Your task to perform on an android device: change timer sound Image 0: 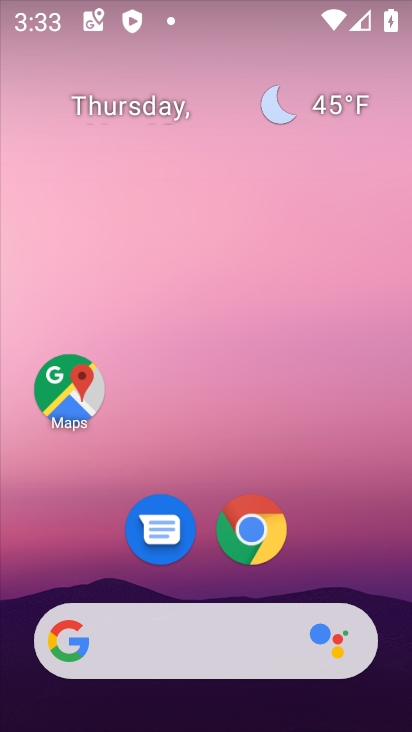
Step 0: drag from (354, 461) to (382, 113)
Your task to perform on an android device: change timer sound Image 1: 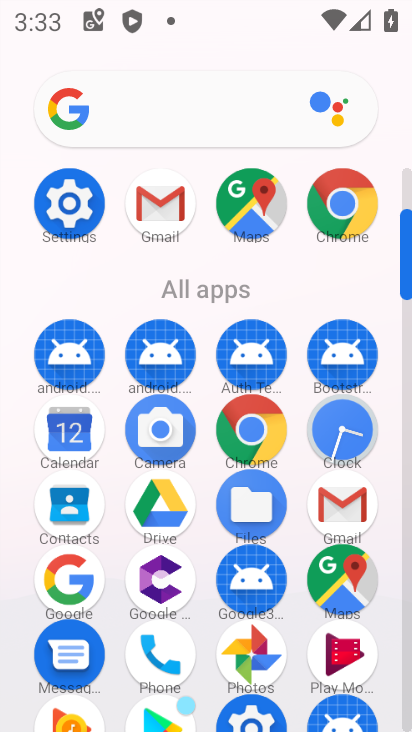
Step 1: click (88, 200)
Your task to perform on an android device: change timer sound Image 2: 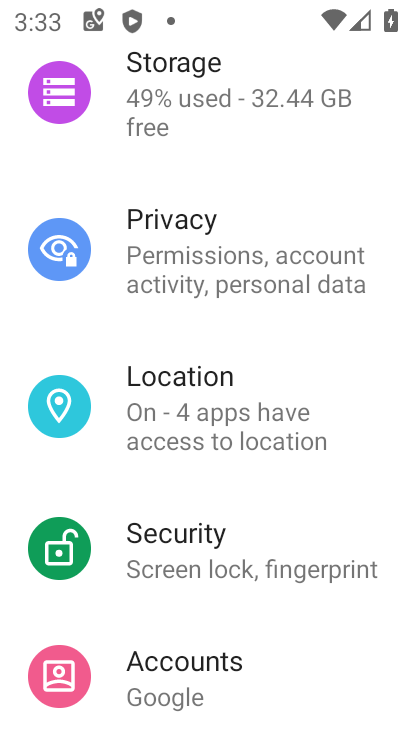
Step 2: press home button
Your task to perform on an android device: change timer sound Image 3: 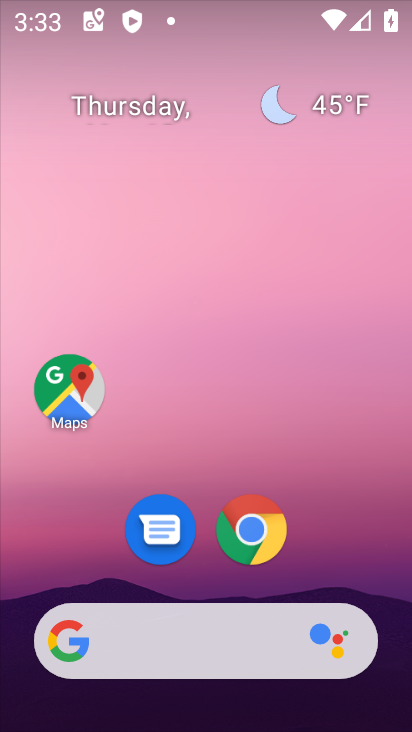
Step 3: drag from (330, 319) to (370, 10)
Your task to perform on an android device: change timer sound Image 4: 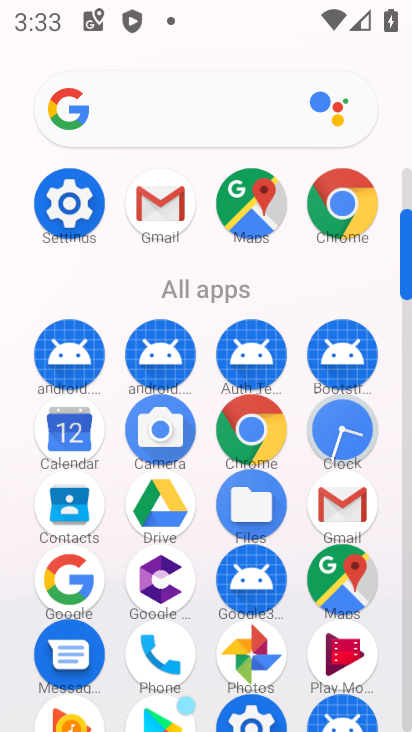
Step 4: click (354, 439)
Your task to perform on an android device: change timer sound Image 5: 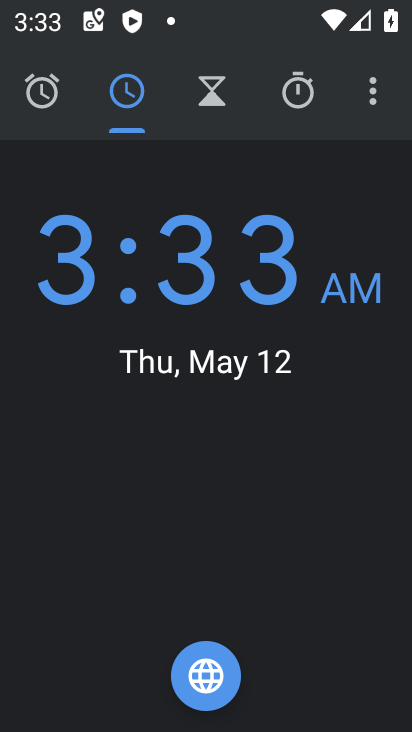
Step 5: click (372, 89)
Your task to perform on an android device: change timer sound Image 6: 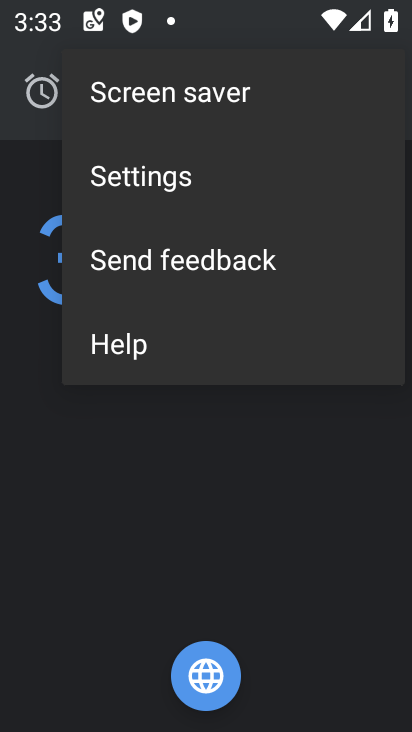
Step 6: click (163, 180)
Your task to perform on an android device: change timer sound Image 7: 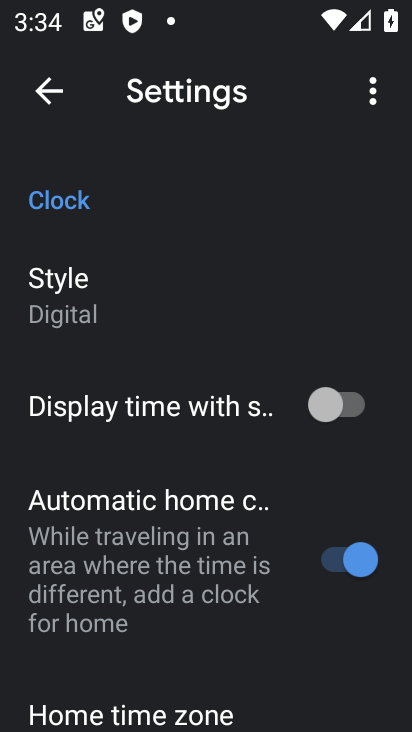
Step 7: drag from (209, 601) to (244, 164)
Your task to perform on an android device: change timer sound Image 8: 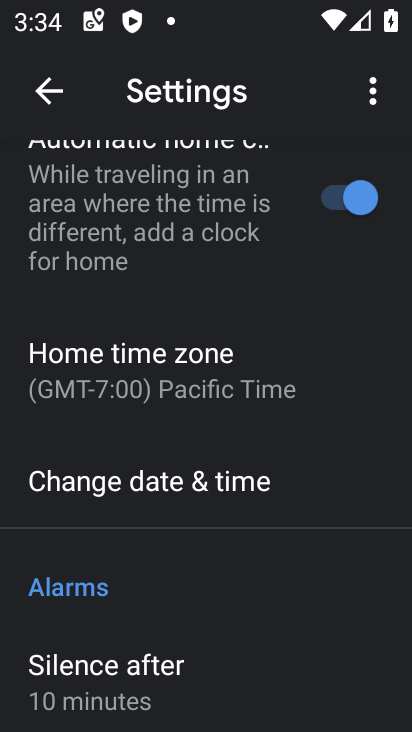
Step 8: drag from (258, 621) to (238, 177)
Your task to perform on an android device: change timer sound Image 9: 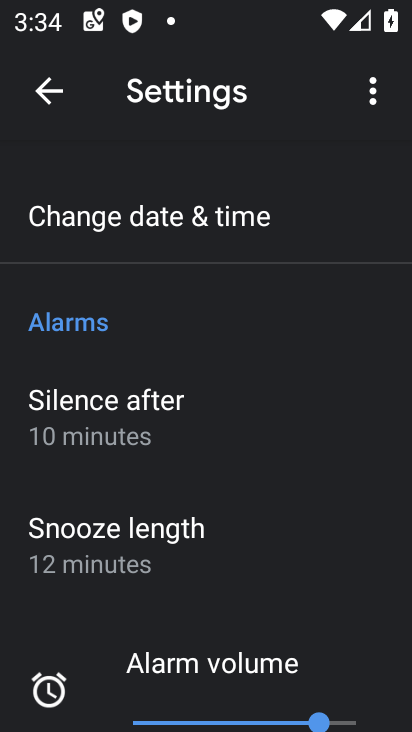
Step 9: drag from (191, 565) to (240, 223)
Your task to perform on an android device: change timer sound Image 10: 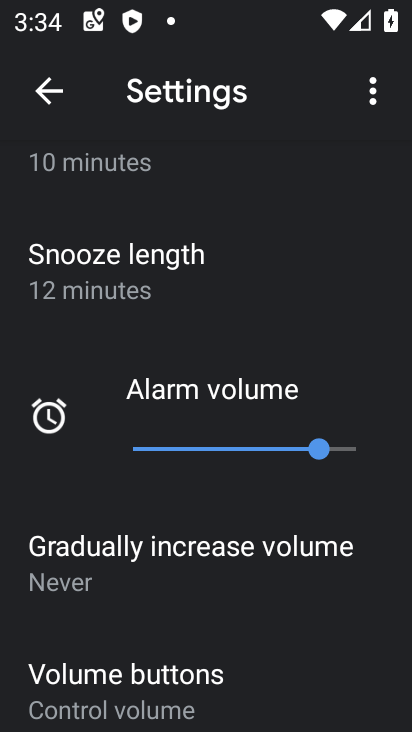
Step 10: drag from (208, 625) to (236, 287)
Your task to perform on an android device: change timer sound Image 11: 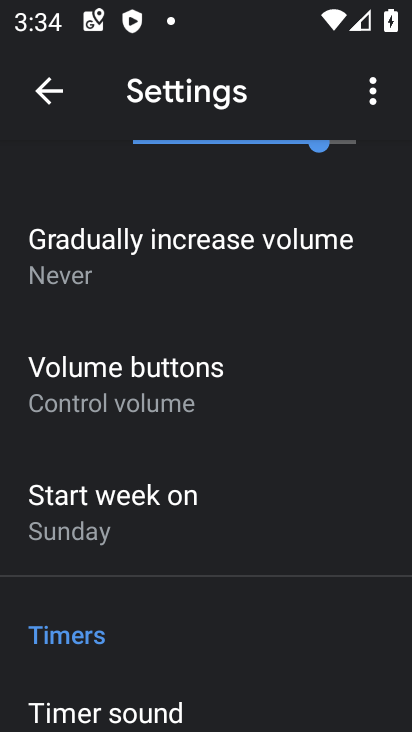
Step 11: drag from (231, 683) to (274, 354)
Your task to perform on an android device: change timer sound Image 12: 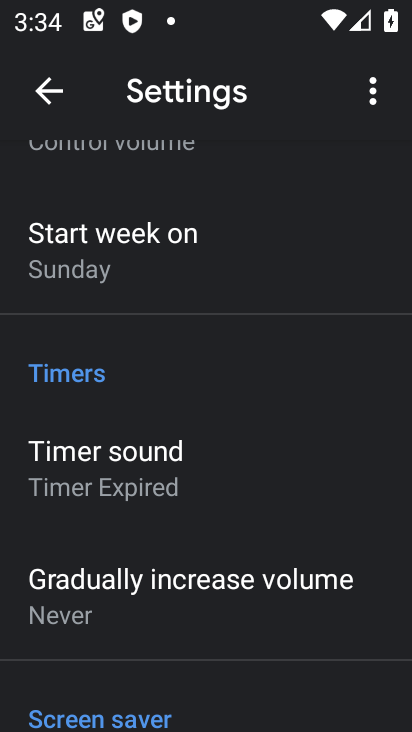
Step 12: click (178, 462)
Your task to perform on an android device: change timer sound Image 13: 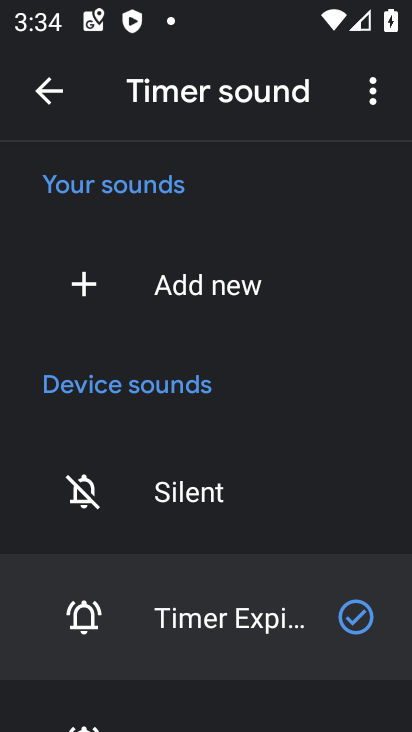
Step 13: drag from (283, 613) to (339, 277)
Your task to perform on an android device: change timer sound Image 14: 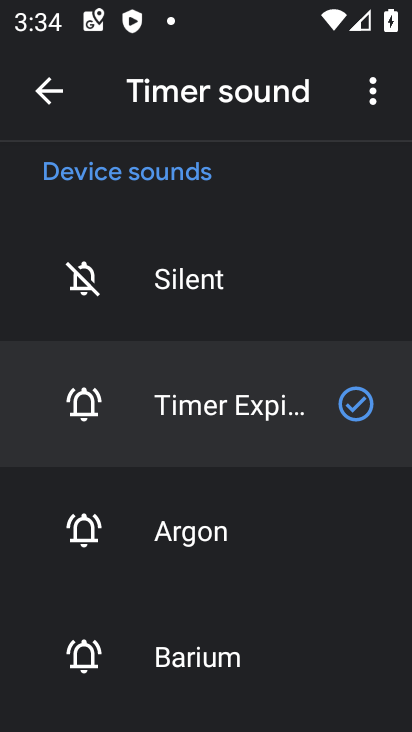
Step 14: click (187, 567)
Your task to perform on an android device: change timer sound Image 15: 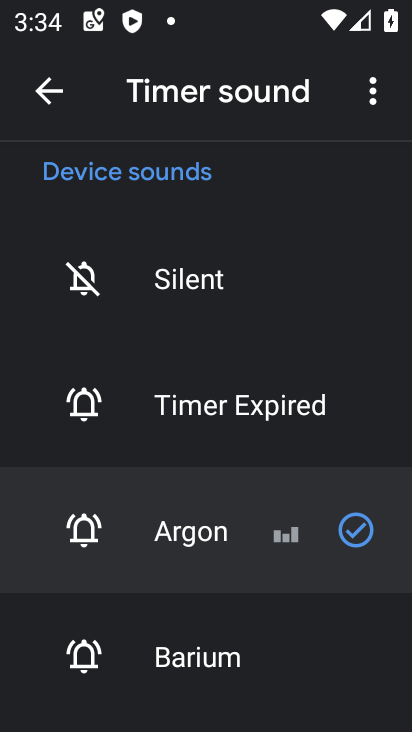
Step 15: task complete